Your task to perform on an android device: Open Amazon Image 0: 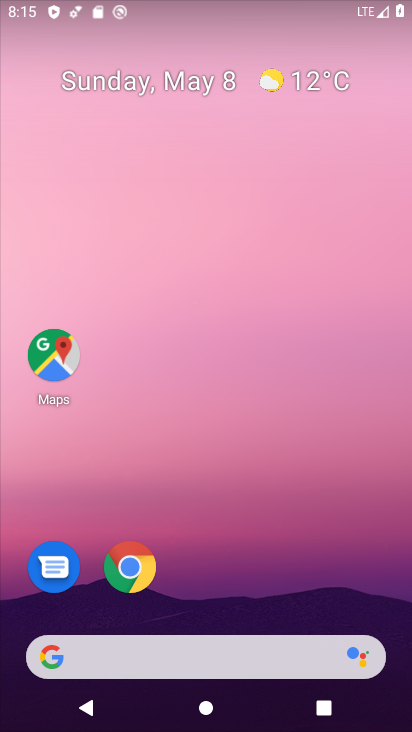
Step 0: drag from (188, 641) to (237, 24)
Your task to perform on an android device: Open Amazon Image 1: 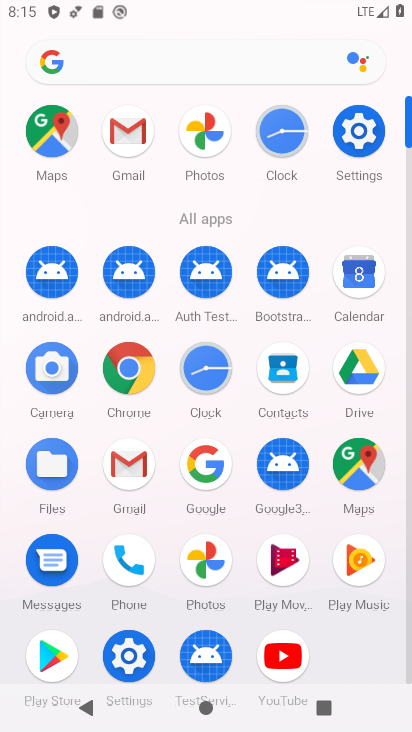
Step 1: click (134, 361)
Your task to perform on an android device: Open Amazon Image 2: 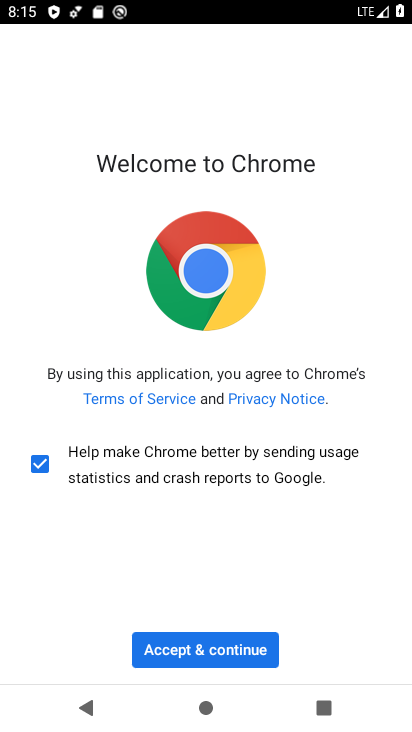
Step 2: click (194, 634)
Your task to perform on an android device: Open Amazon Image 3: 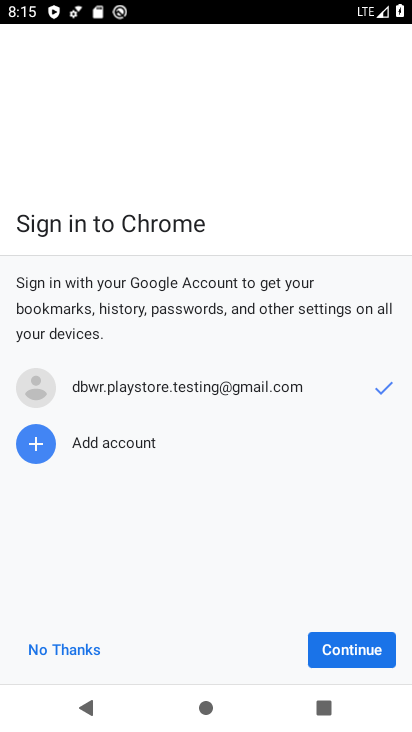
Step 3: click (374, 661)
Your task to perform on an android device: Open Amazon Image 4: 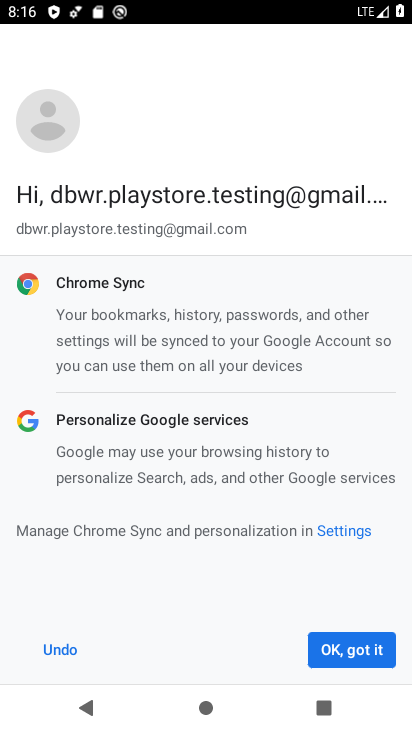
Step 4: click (374, 661)
Your task to perform on an android device: Open Amazon Image 5: 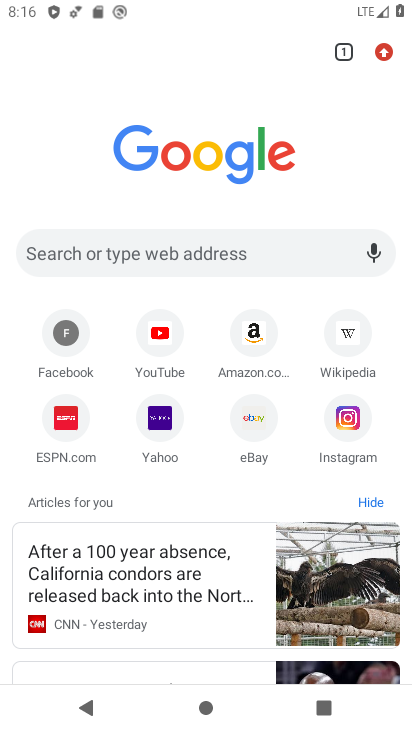
Step 5: click (263, 341)
Your task to perform on an android device: Open Amazon Image 6: 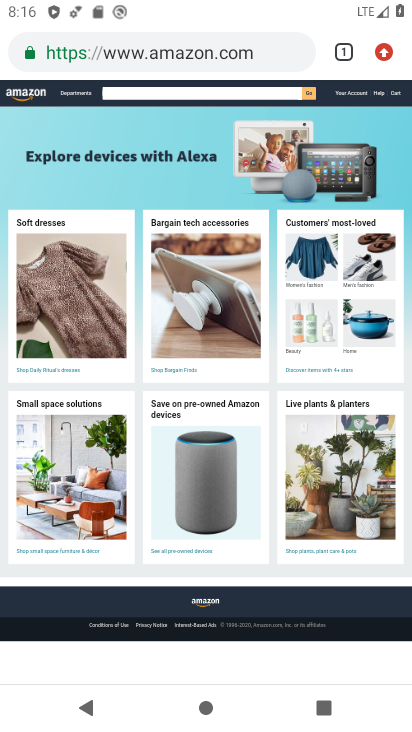
Step 6: task complete